Your task to perform on an android device: Open the stopwatch Image 0: 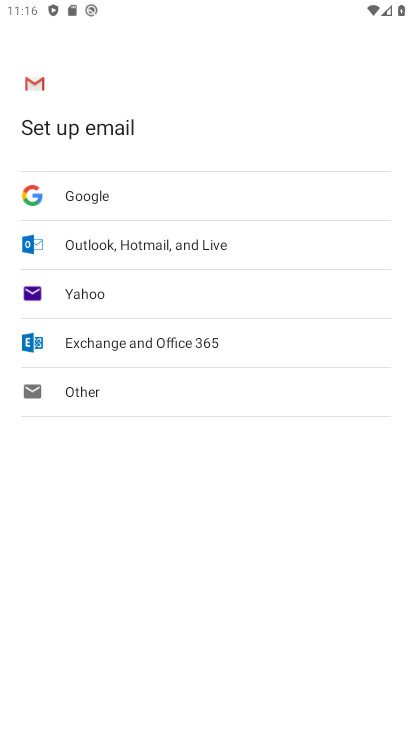
Step 0: press home button
Your task to perform on an android device: Open the stopwatch Image 1: 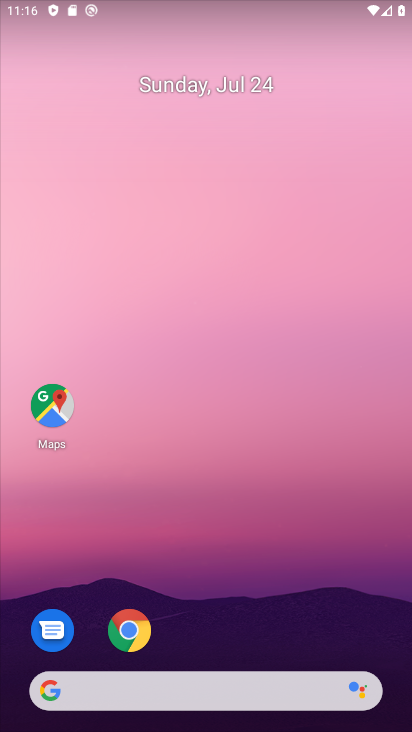
Step 1: drag from (178, 618) to (193, 206)
Your task to perform on an android device: Open the stopwatch Image 2: 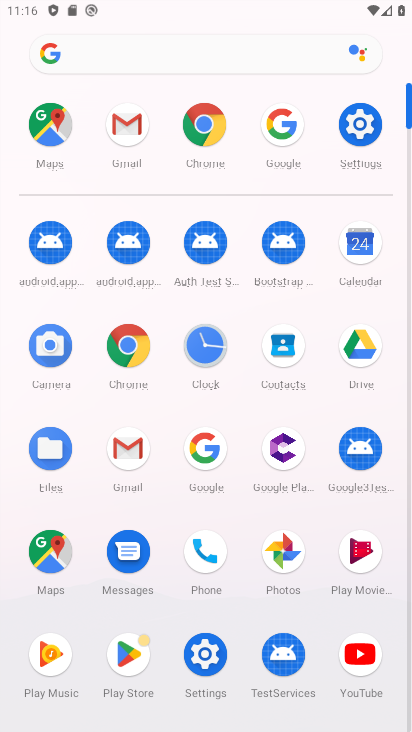
Step 2: click (200, 345)
Your task to perform on an android device: Open the stopwatch Image 3: 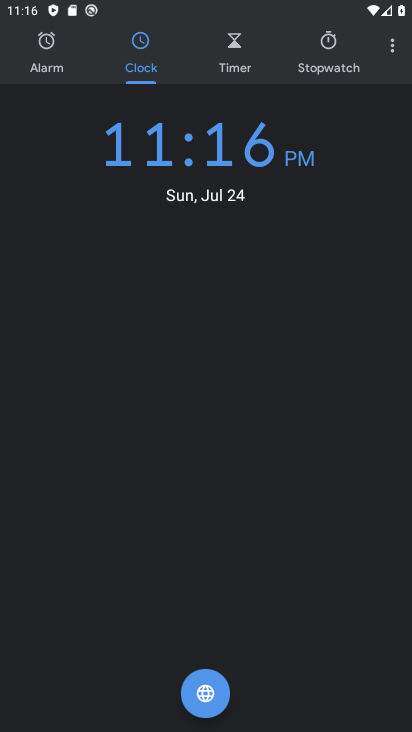
Step 3: click (321, 41)
Your task to perform on an android device: Open the stopwatch Image 4: 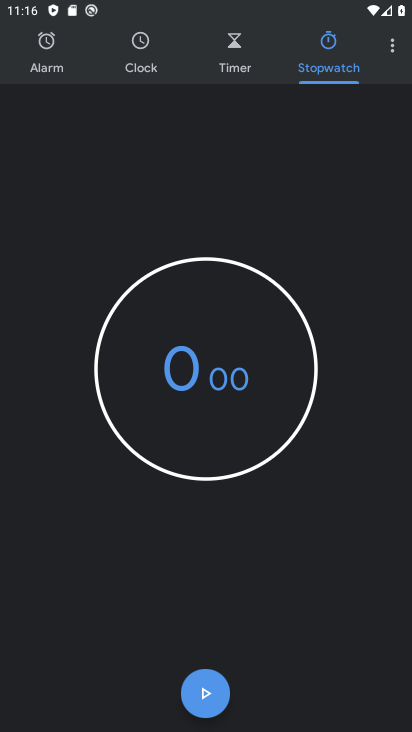
Step 4: task complete